Your task to perform on an android device: turn off translation in the chrome app Image 0: 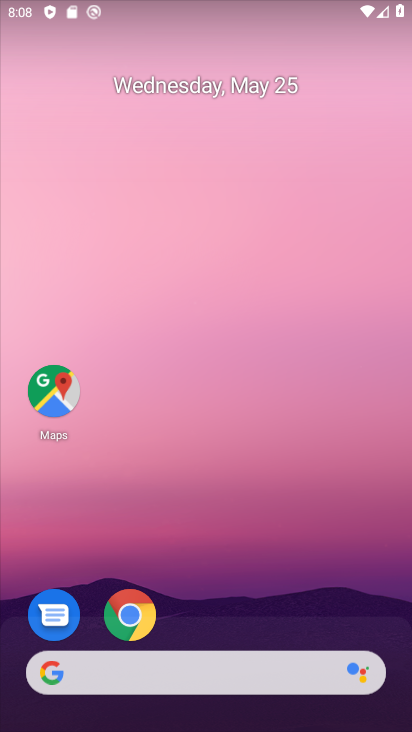
Step 0: click (139, 606)
Your task to perform on an android device: turn off translation in the chrome app Image 1: 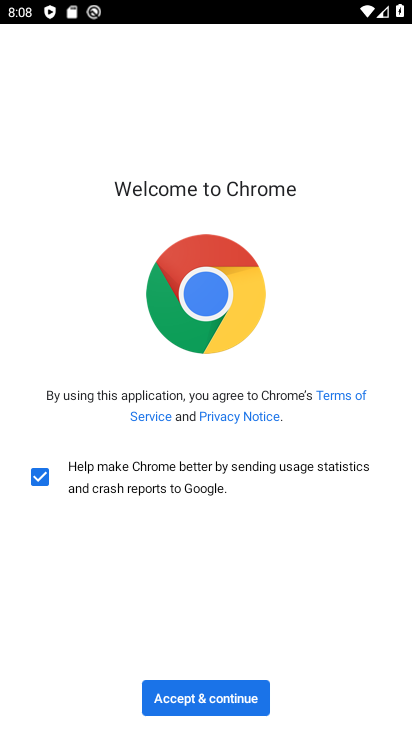
Step 1: click (178, 700)
Your task to perform on an android device: turn off translation in the chrome app Image 2: 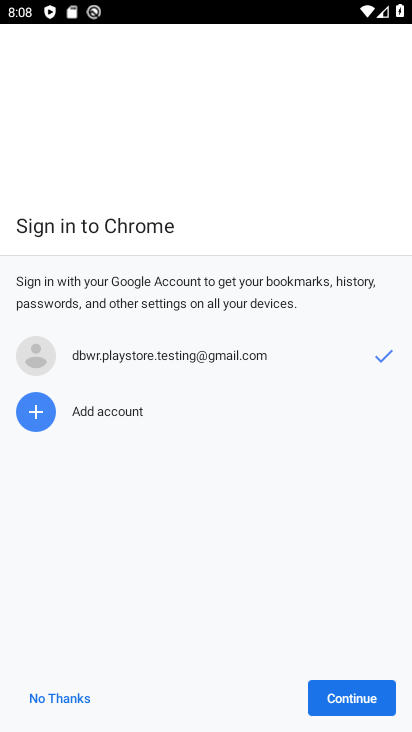
Step 2: click (364, 699)
Your task to perform on an android device: turn off translation in the chrome app Image 3: 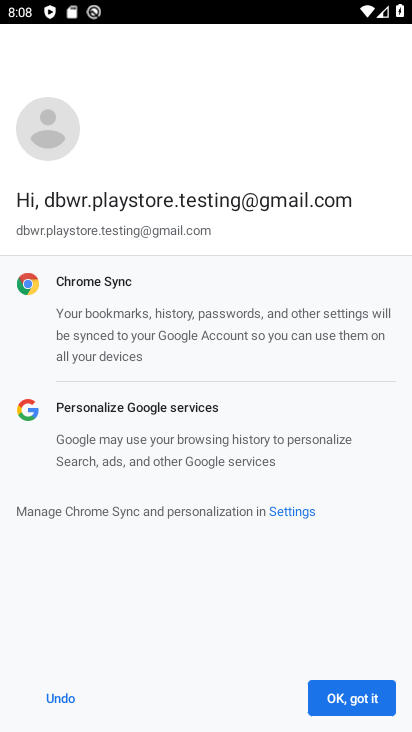
Step 3: click (338, 684)
Your task to perform on an android device: turn off translation in the chrome app Image 4: 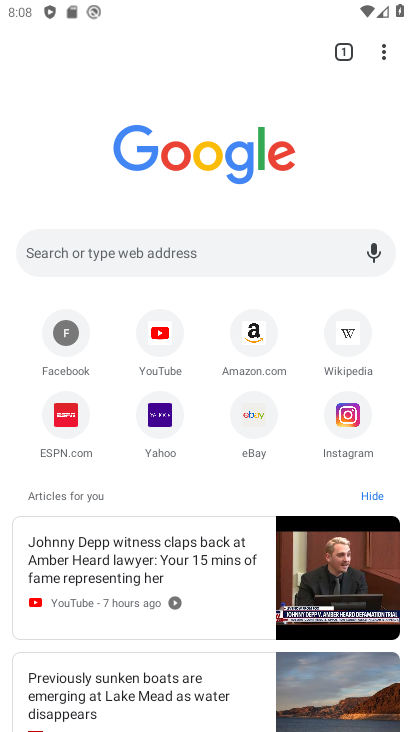
Step 4: click (380, 58)
Your task to perform on an android device: turn off translation in the chrome app Image 5: 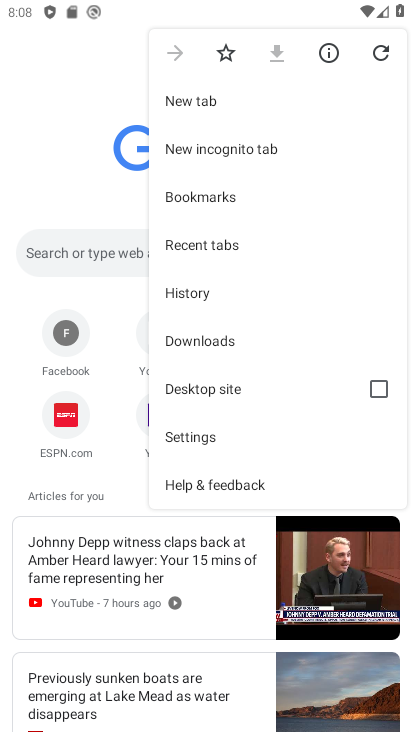
Step 5: click (181, 436)
Your task to perform on an android device: turn off translation in the chrome app Image 6: 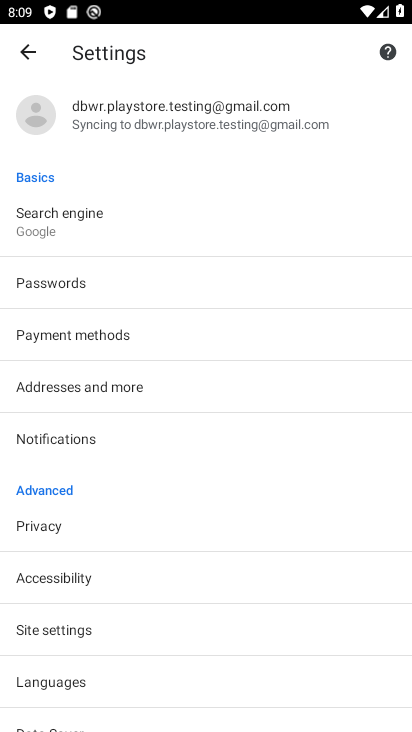
Step 6: click (64, 690)
Your task to perform on an android device: turn off translation in the chrome app Image 7: 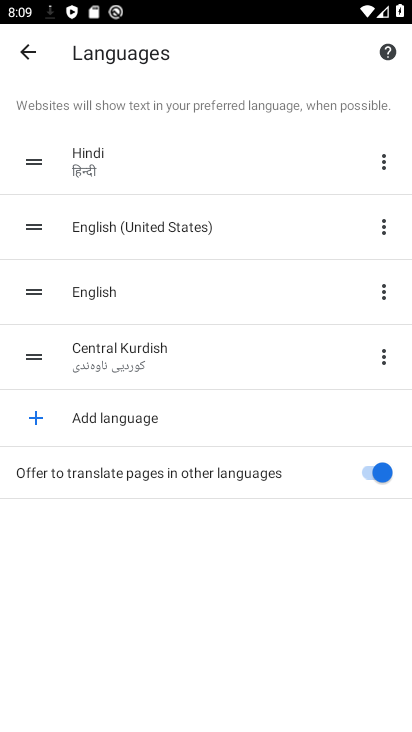
Step 7: click (366, 474)
Your task to perform on an android device: turn off translation in the chrome app Image 8: 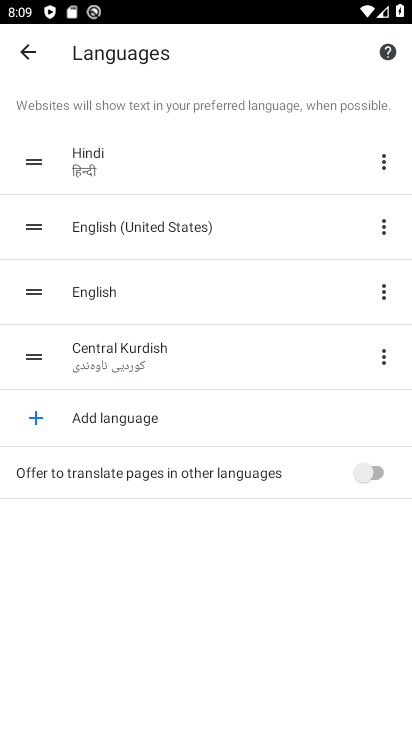
Step 8: task complete